Your task to perform on an android device: turn on improve location accuracy Image 0: 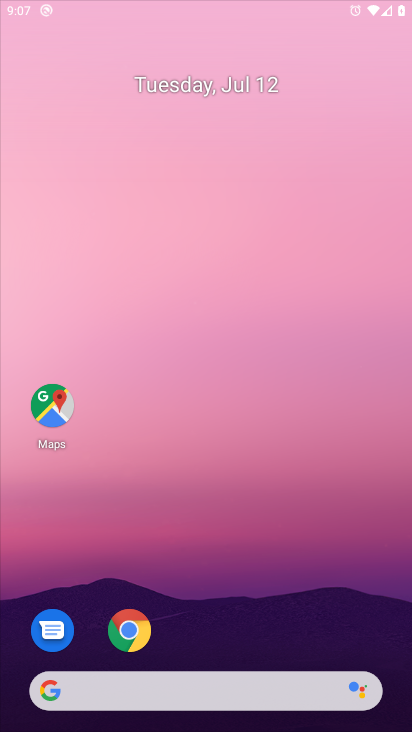
Step 0: press home button
Your task to perform on an android device: turn on improve location accuracy Image 1: 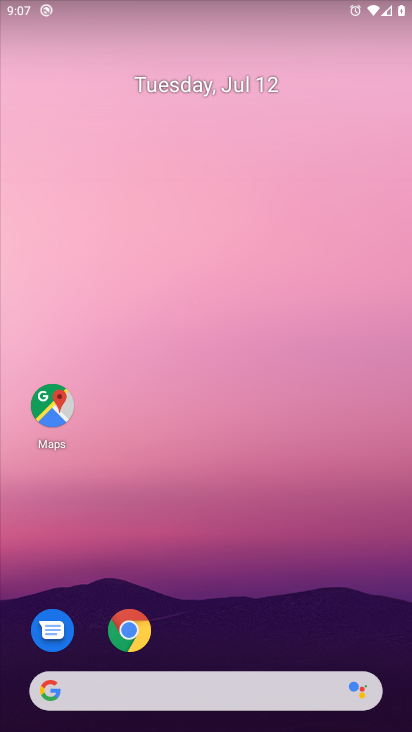
Step 1: drag from (226, 642) to (256, 183)
Your task to perform on an android device: turn on improve location accuracy Image 2: 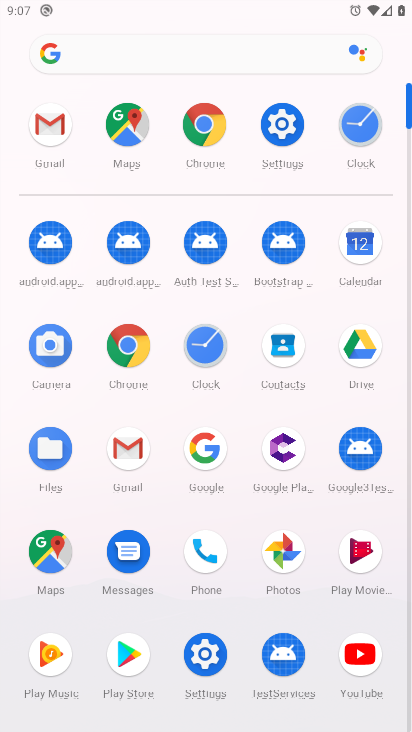
Step 2: click (270, 121)
Your task to perform on an android device: turn on improve location accuracy Image 3: 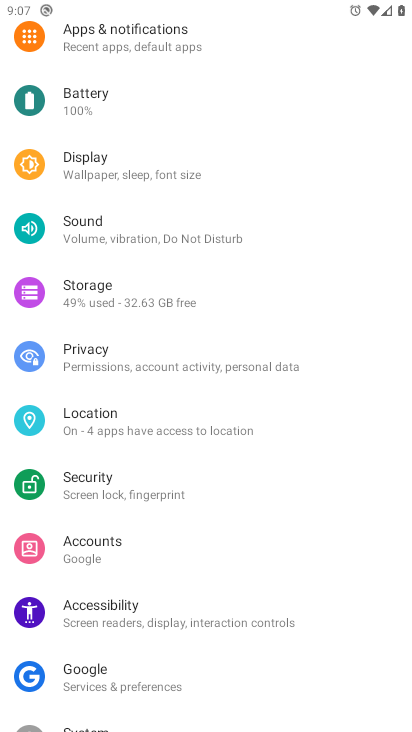
Step 3: click (80, 418)
Your task to perform on an android device: turn on improve location accuracy Image 4: 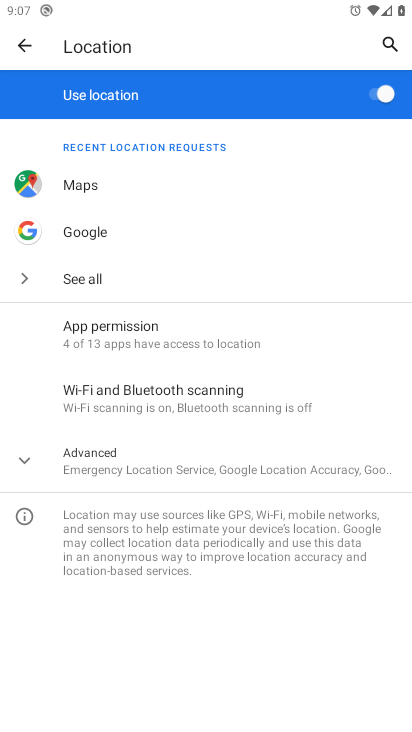
Step 4: click (112, 474)
Your task to perform on an android device: turn on improve location accuracy Image 5: 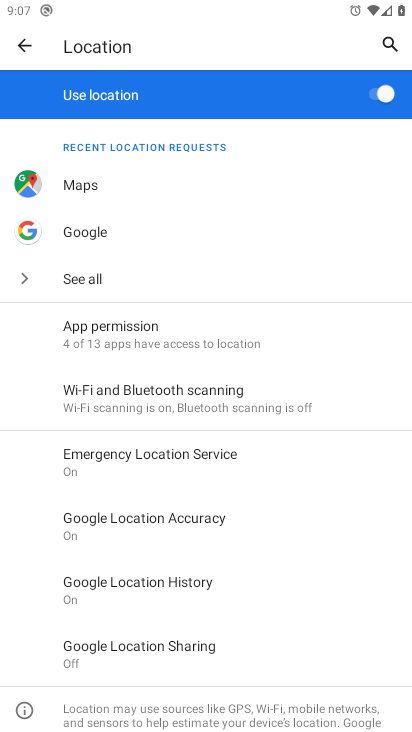
Step 5: click (132, 525)
Your task to perform on an android device: turn on improve location accuracy Image 6: 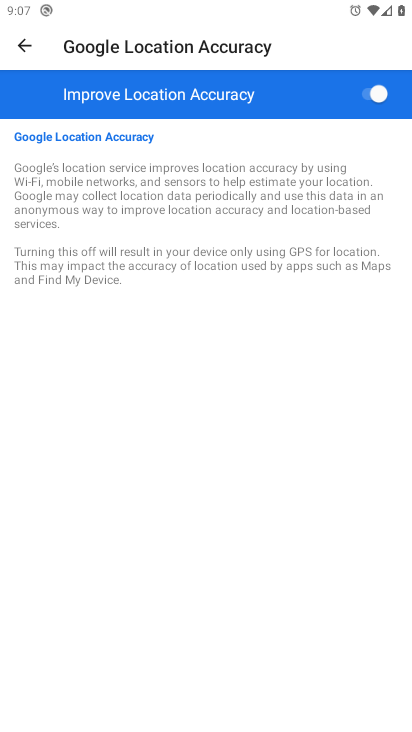
Step 6: task complete